Your task to perform on an android device: check battery use Image 0: 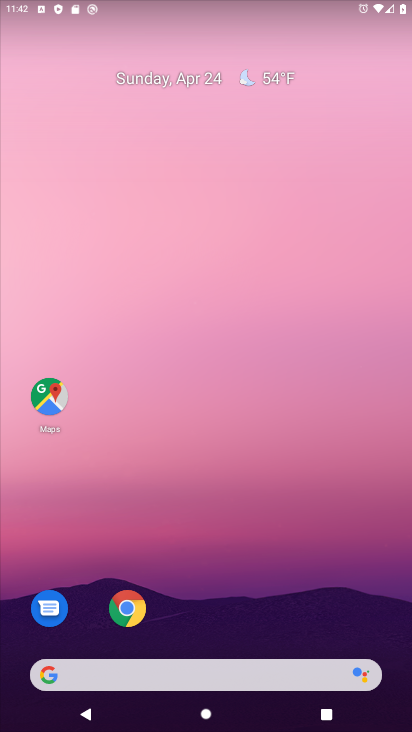
Step 0: drag from (369, 618) to (331, 33)
Your task to perform on an android device: check battery use Image 1: 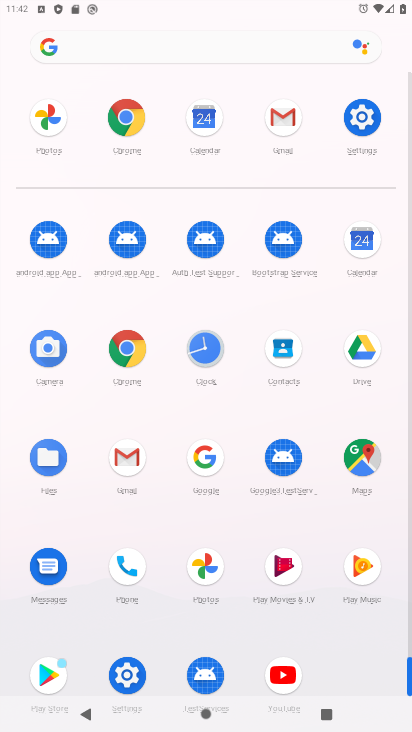
Step 1: click (123, 671)
Your task to perform on an android device: check battery use Image 2: 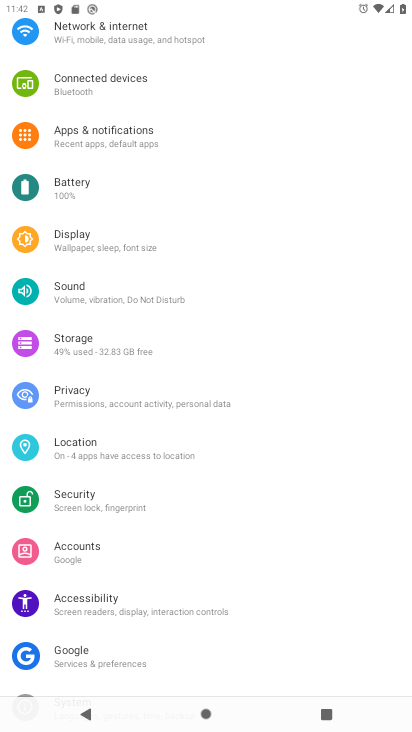
Step 2: drag from (295, 190) to (293, 427)
Your task to perform on an android device: check battery use Image 3: 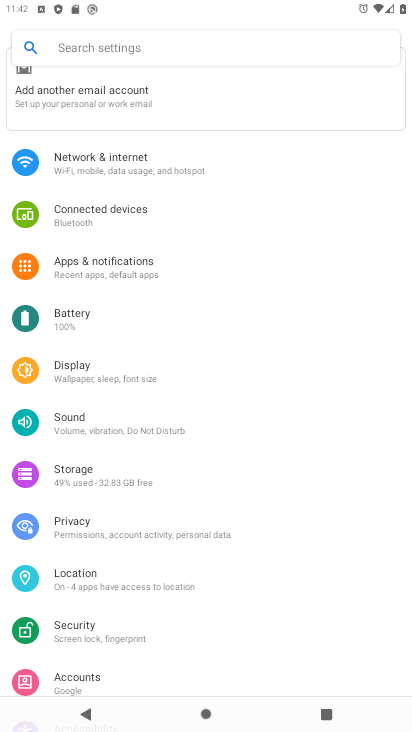
Step 3: click (62, 305)
Your task to perform on an android device: check battery use Image 4: 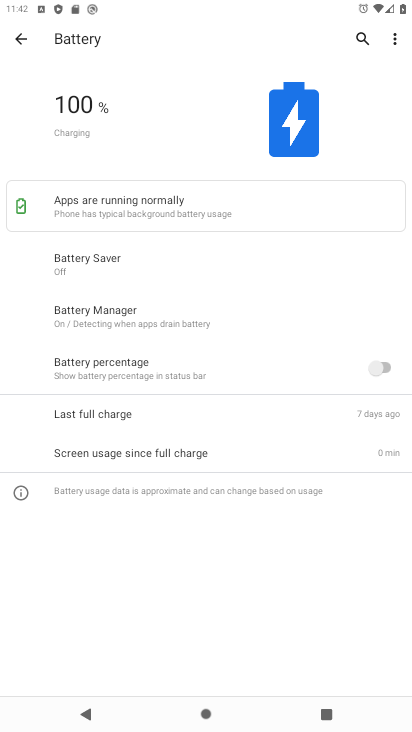
Step 4: click (394, 40)
Your task to perform on an android device: check battery use Image 5: 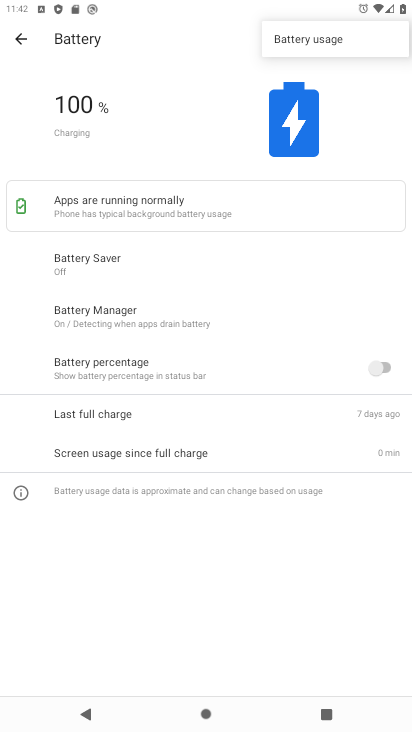
Step 5: click (302, 43)
Your task to perform on an android device: check battery use Image 6: 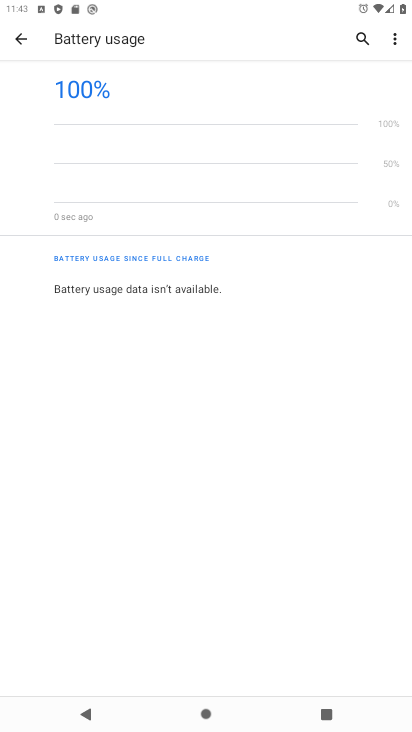
Step 6: task complete